Your task to perform on an android device: open app "McDonald's" Image 0: 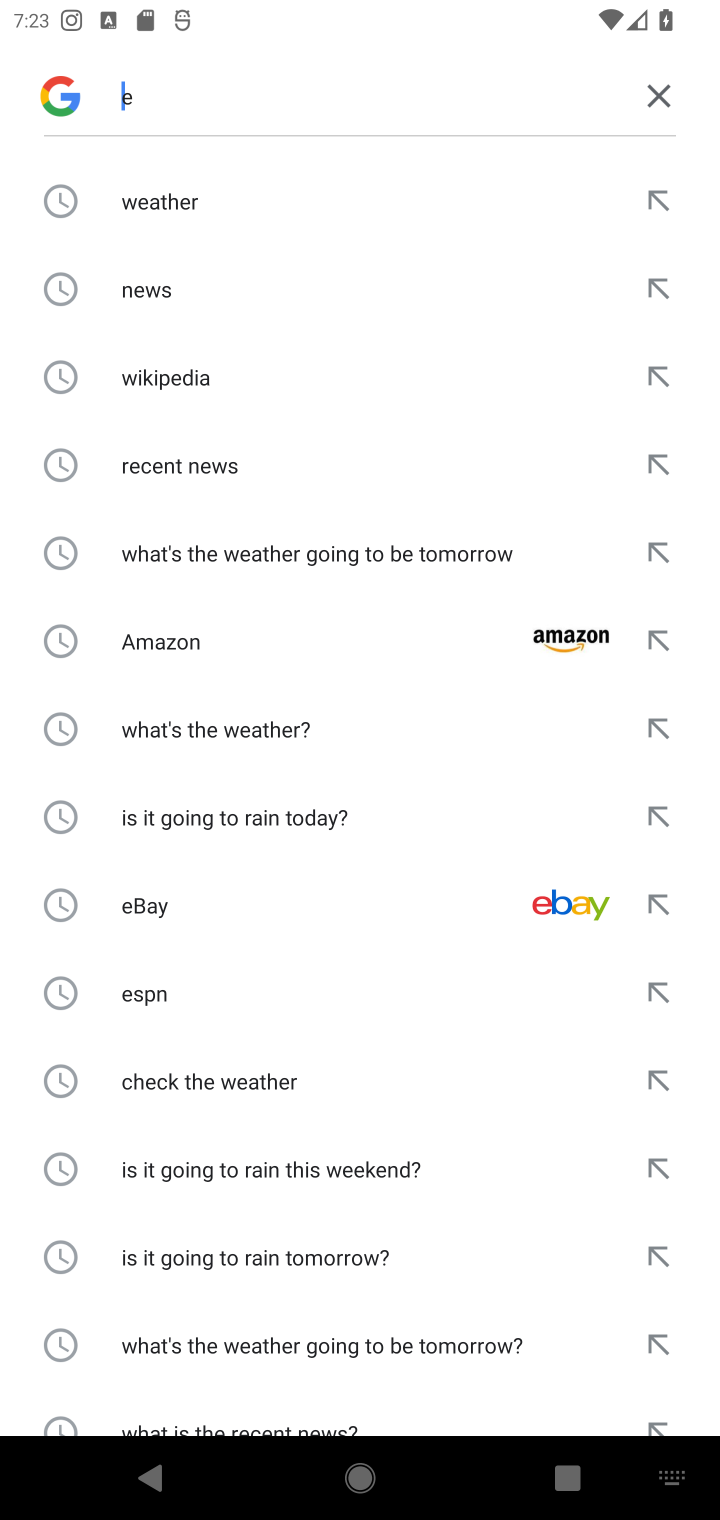
Step 0: press home button
Your task to perform on an android device: open app "McDonald's" Image 1: 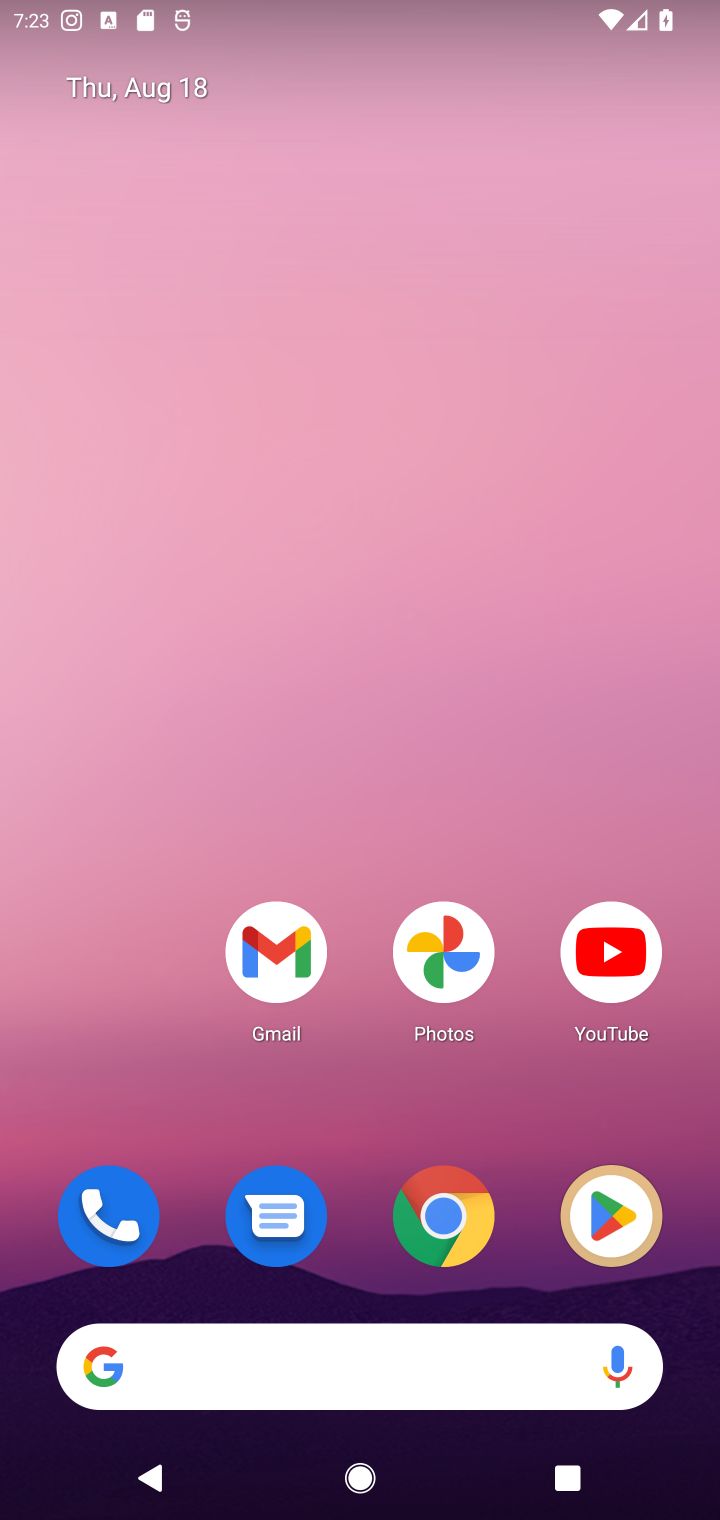
Step 1: click (600, 1208)
Your task to perform on an android device: open app "McDonald's" Image 2: 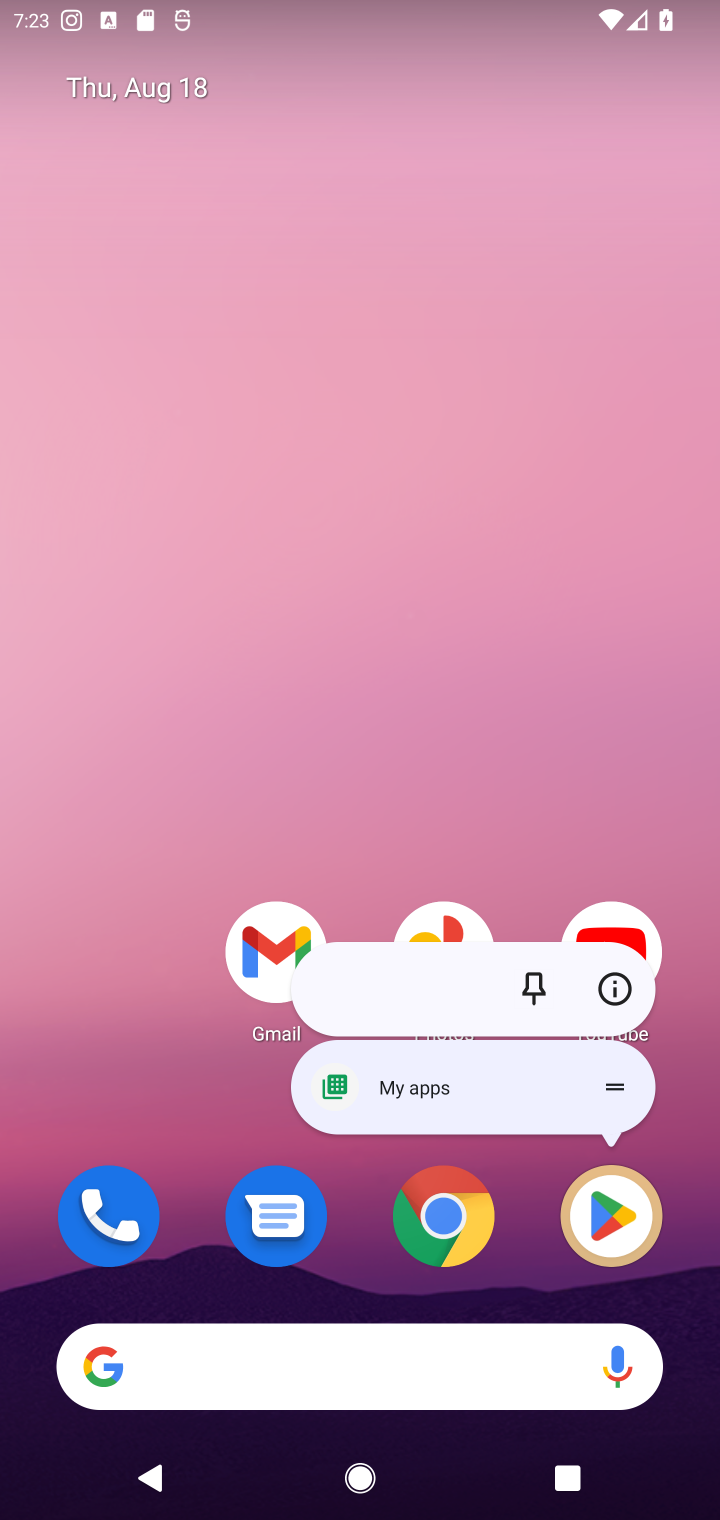
Step 2: click (591, 1207)
Your task to perform on an android device: open app "McDonald's" Image 3: 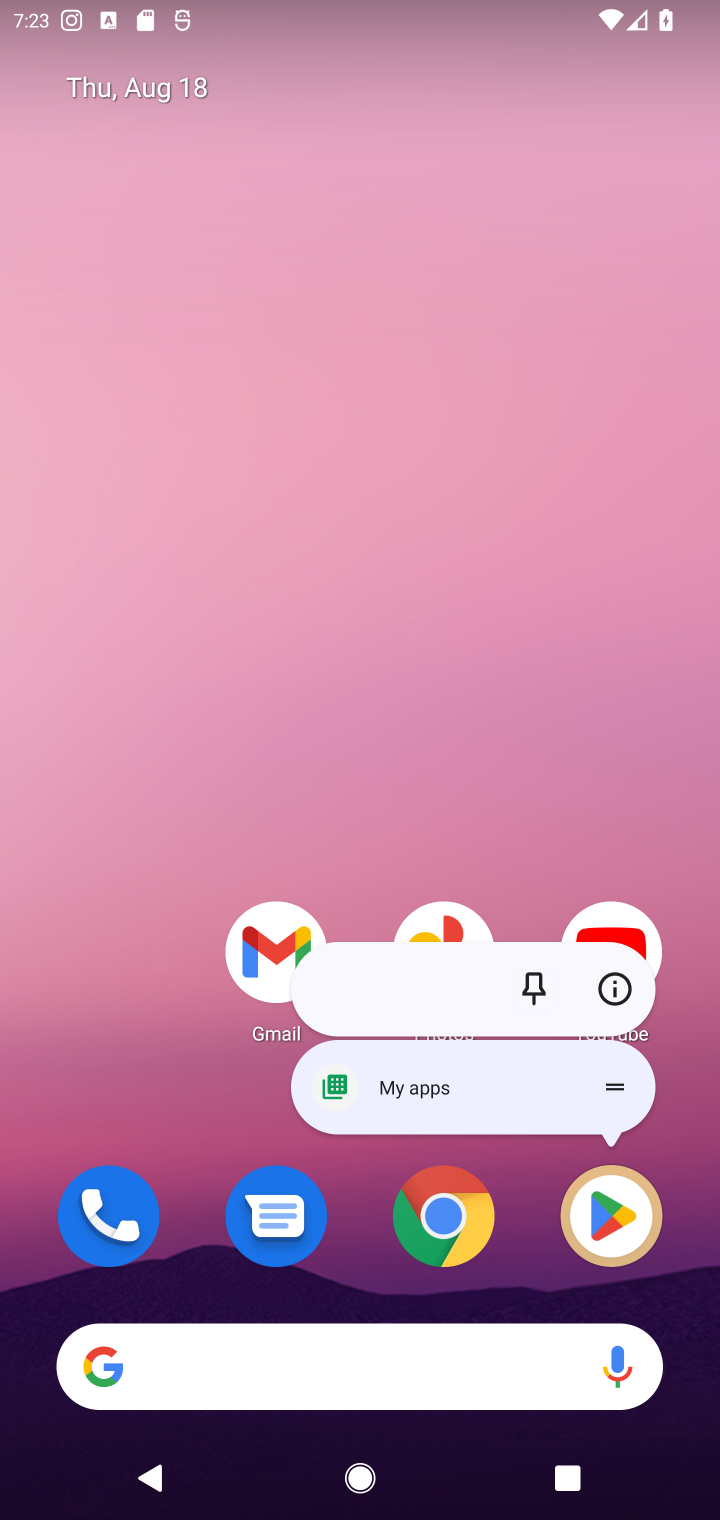
Step 3: click (632, 1201)
Your task to perform on an android device: open app "McDonald's" Image 4: 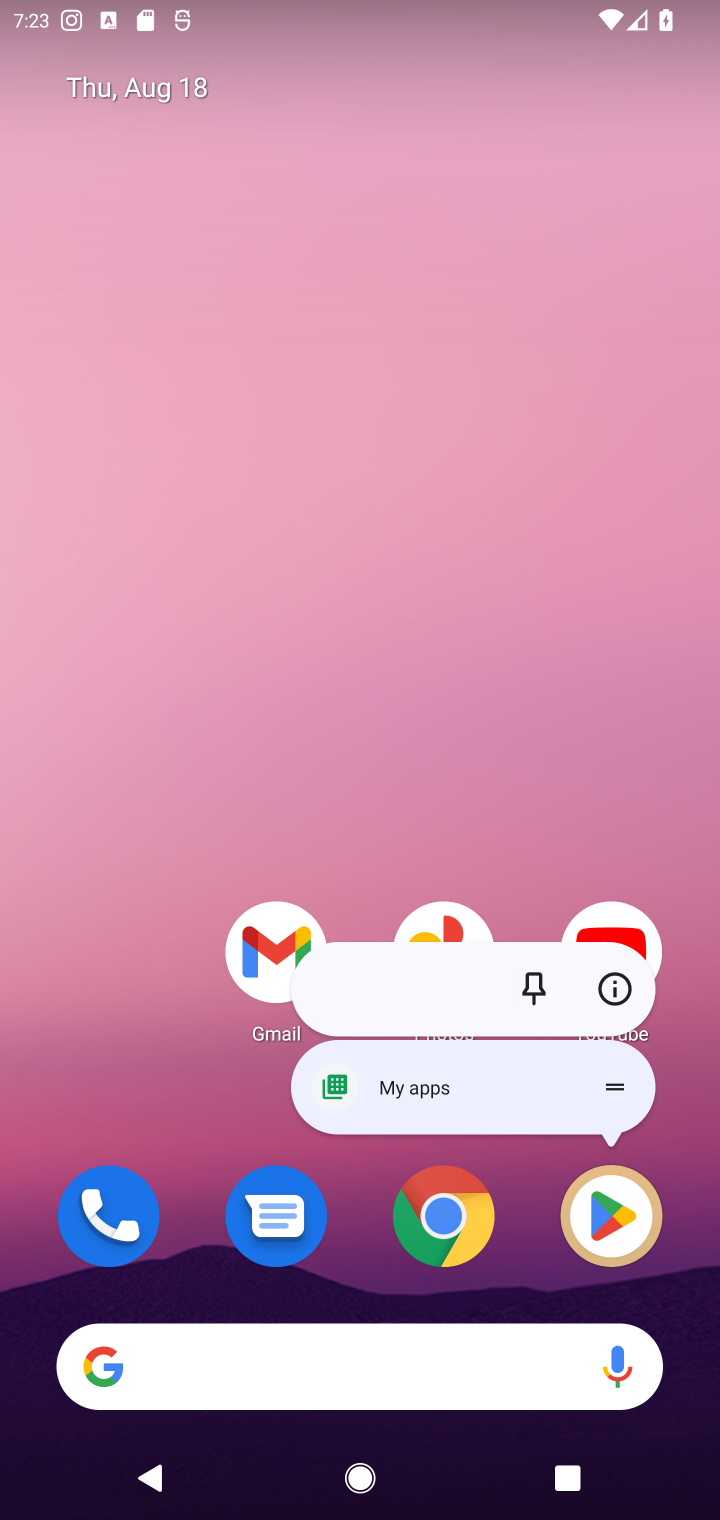
Step 4: click (632, 1201)
Your task to perform on an android device: open app "McDonald's" Image 5: 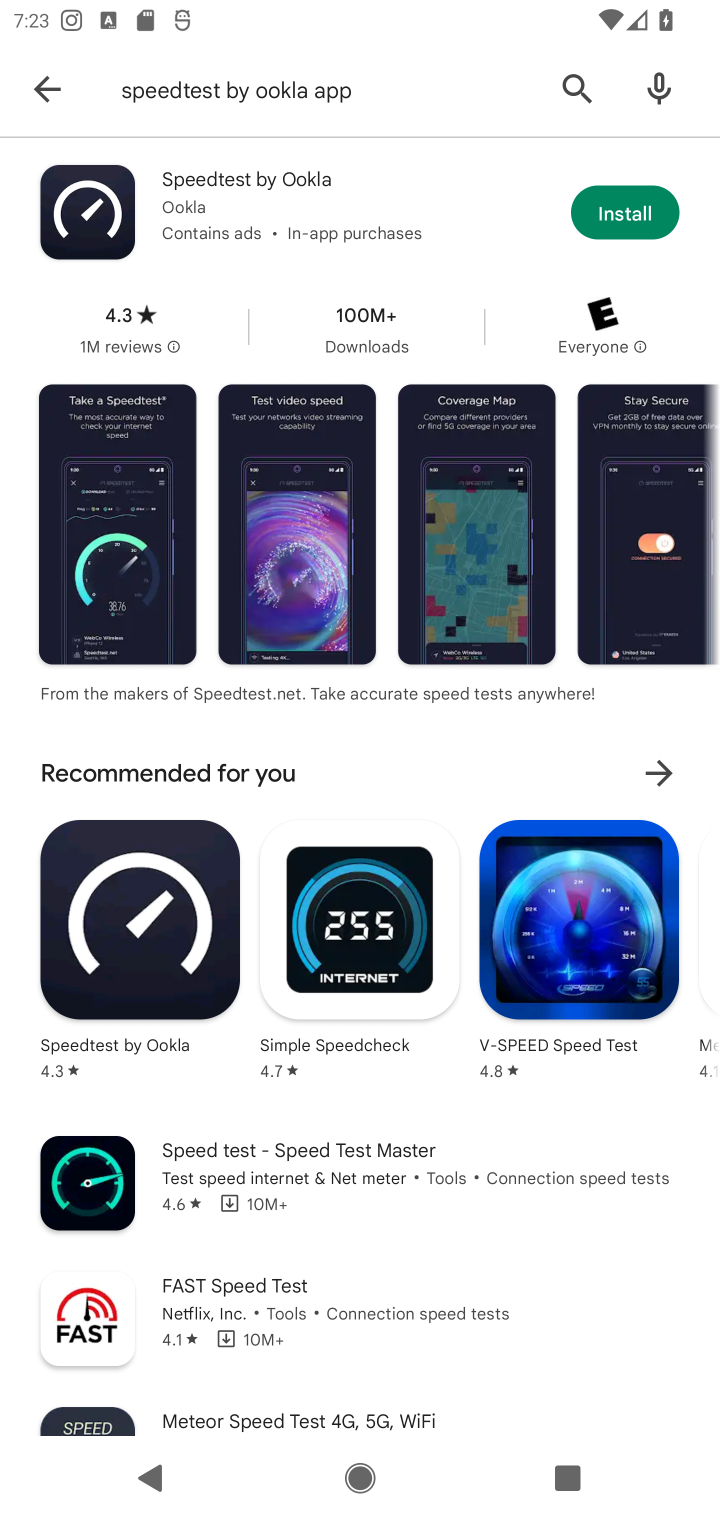
Step 5: click (566, 81)
Your task to perform on an android device: open app "McDonald's" Image 6: 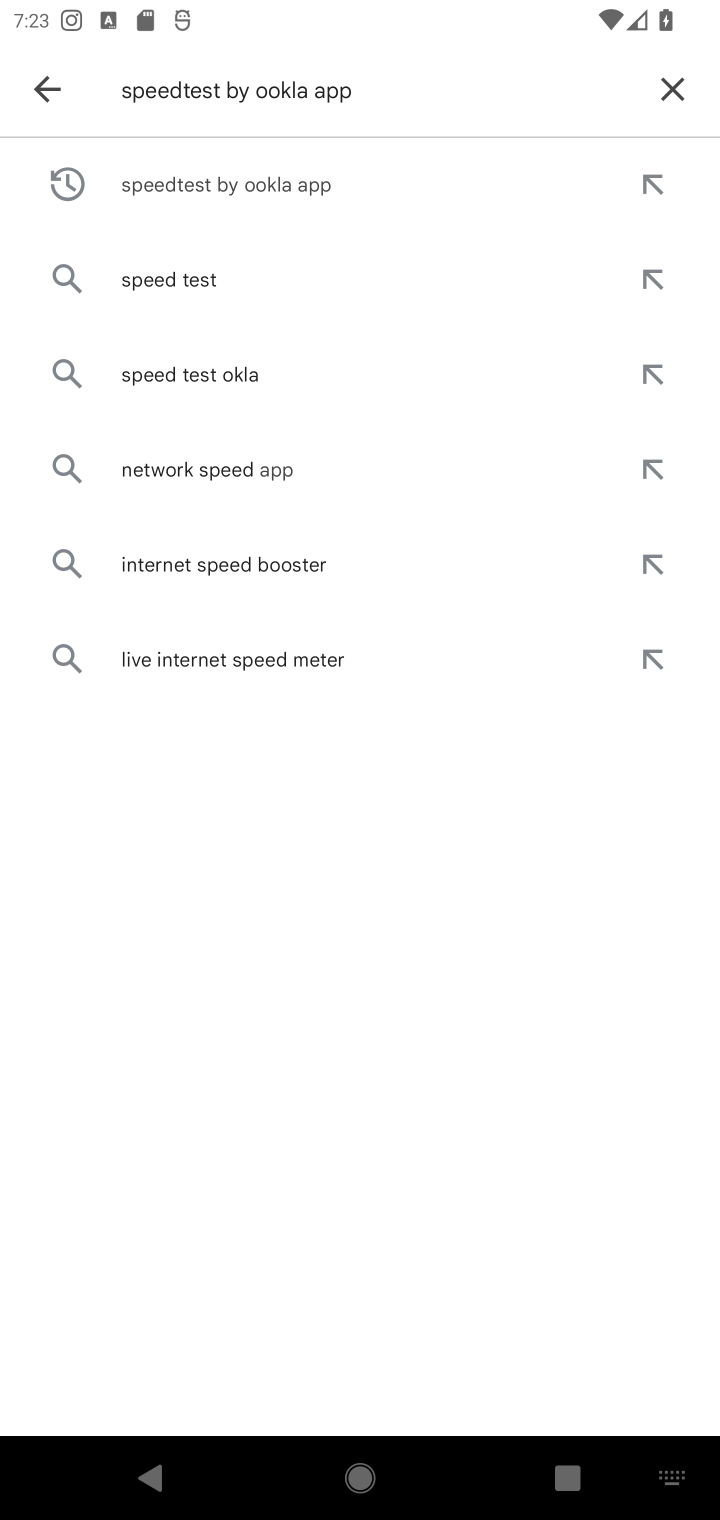
Step 6: click (678, 90)
Your task to perform on an android device: open app "McDonald's" Image 7: 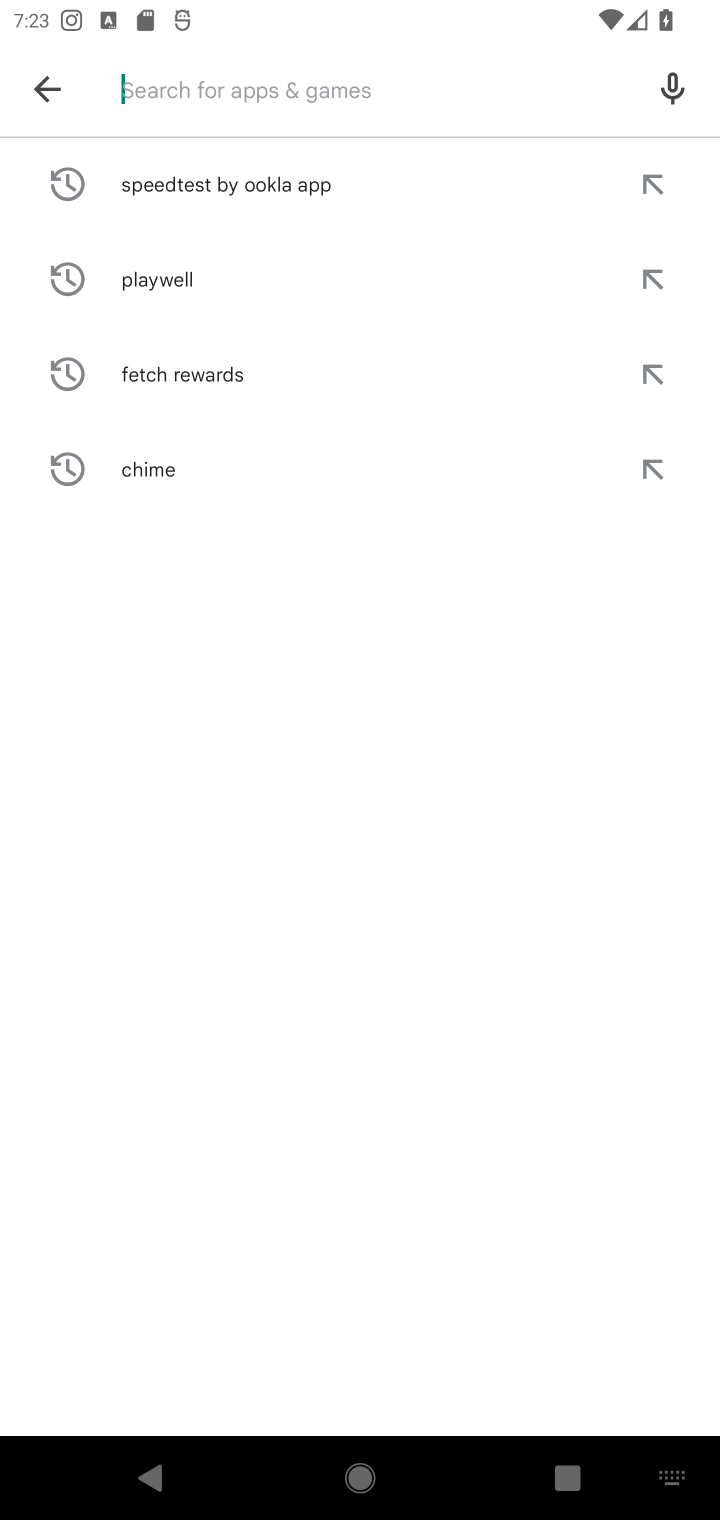
Step 7: type "McDonald's"
Your task to perform on an android device: open app "McDonald's" Image 8: 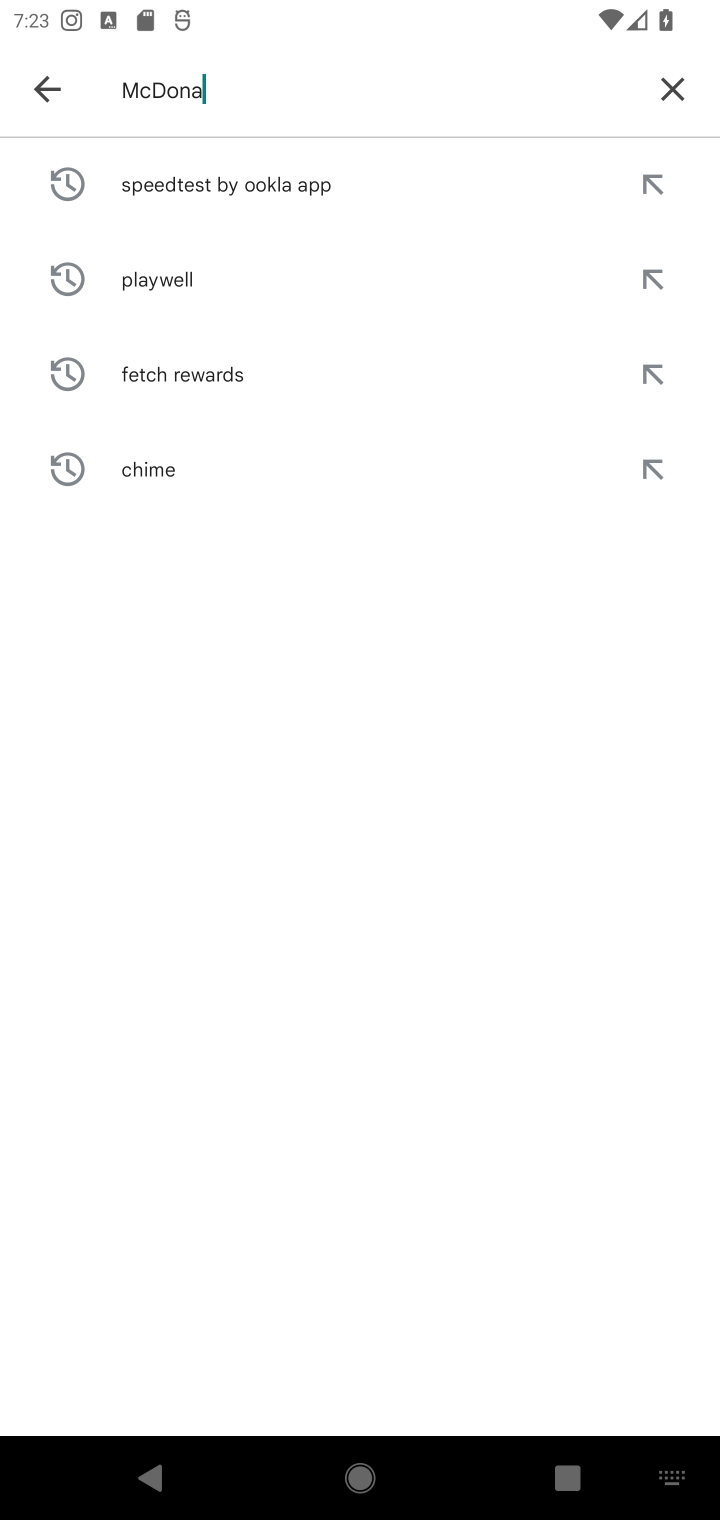
Step 8: type ""
Your task to perform on an android device: open app "McDonald's" Image 9: 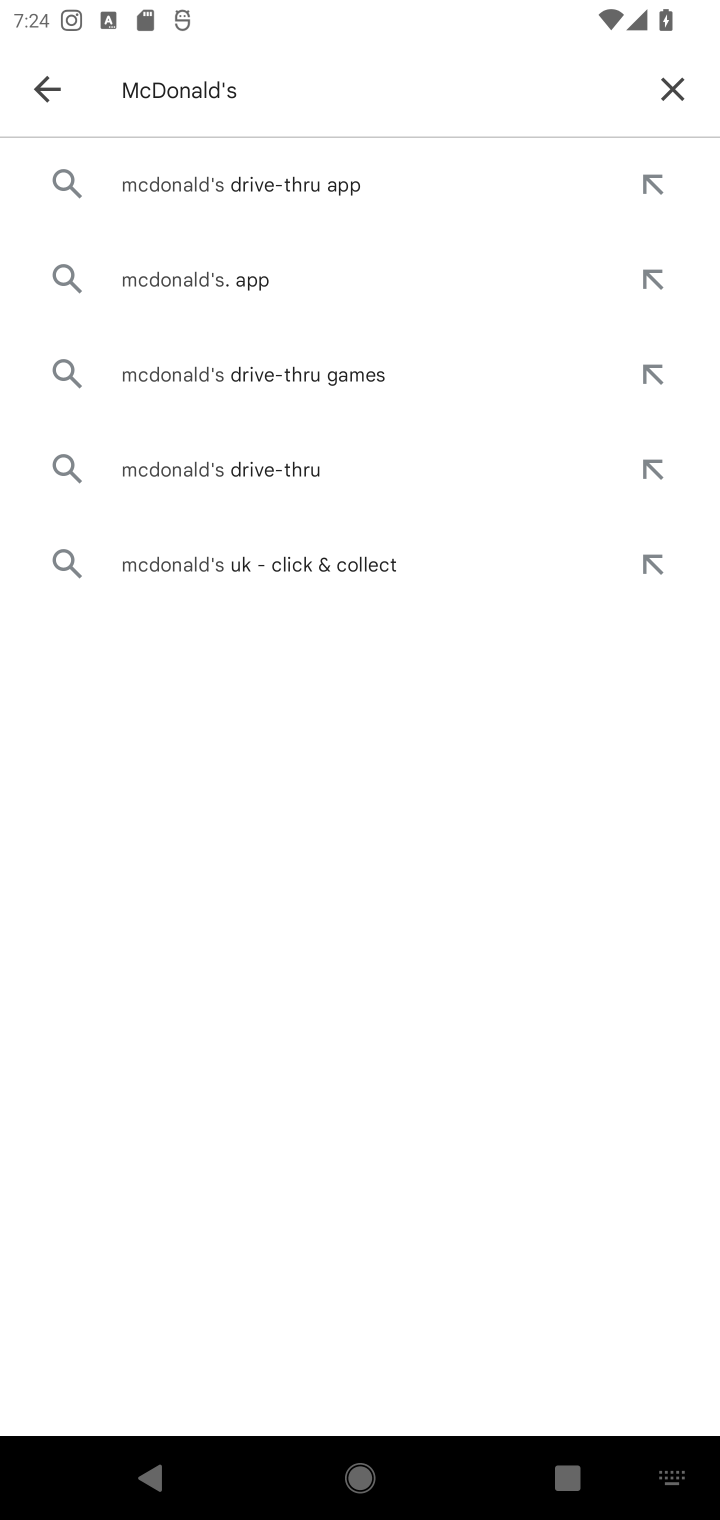
Step 9: click (215, 192)
Your task to perform on an android device: open app "McDonald's" Image 10: 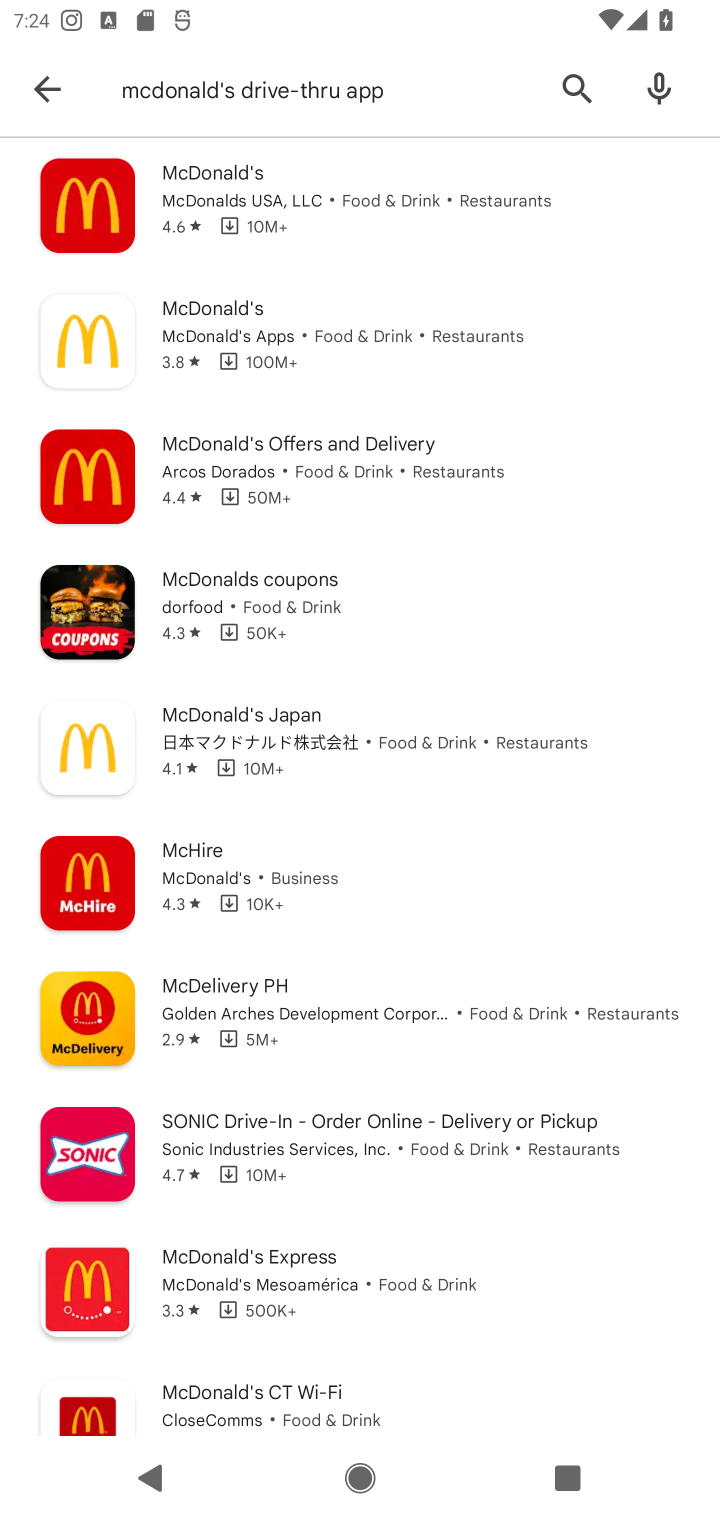
Step 10: click (315, 205)
Your task to perform on an android device: open app "McDonald's" Image 11: 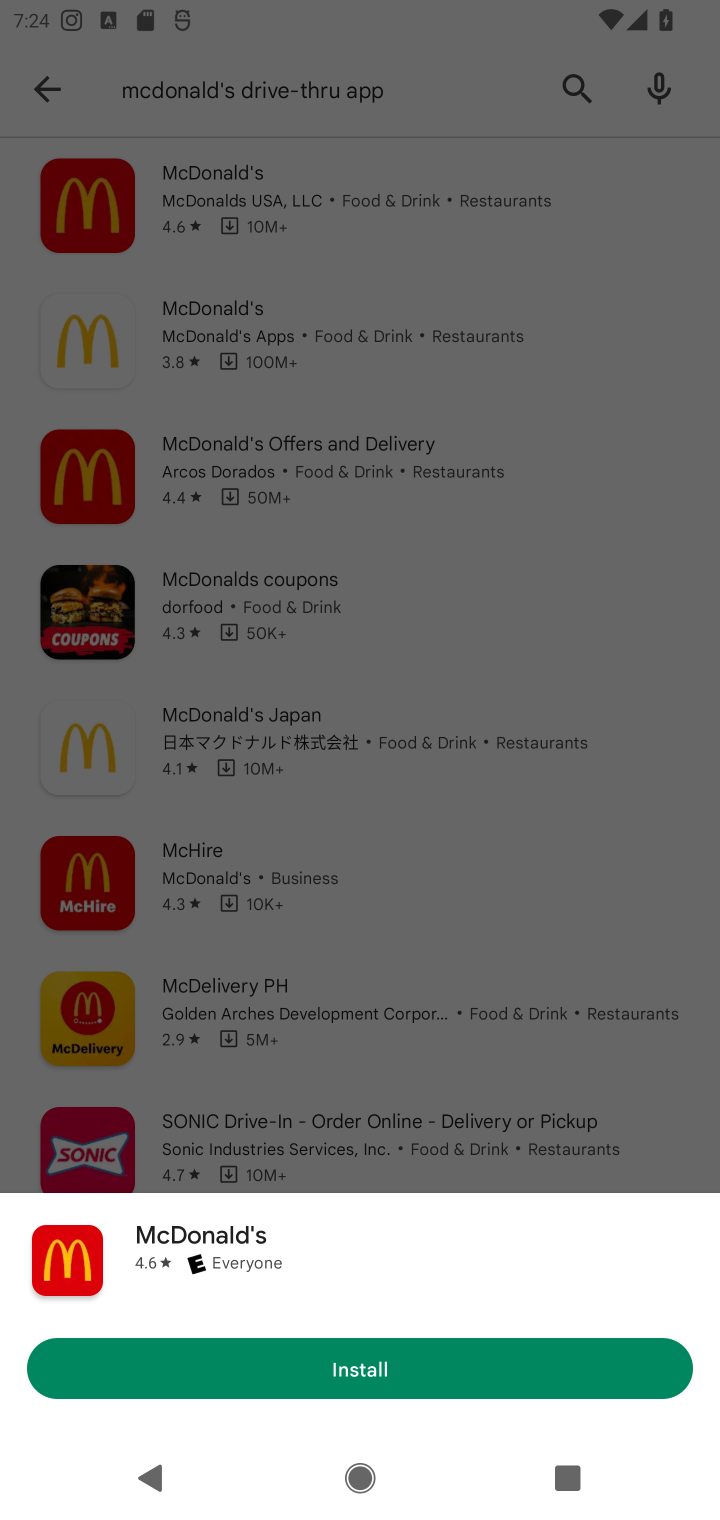
Step 11: click (504, 1342)
Your task to perform on an android device: open app "McDonald's" Image 12: 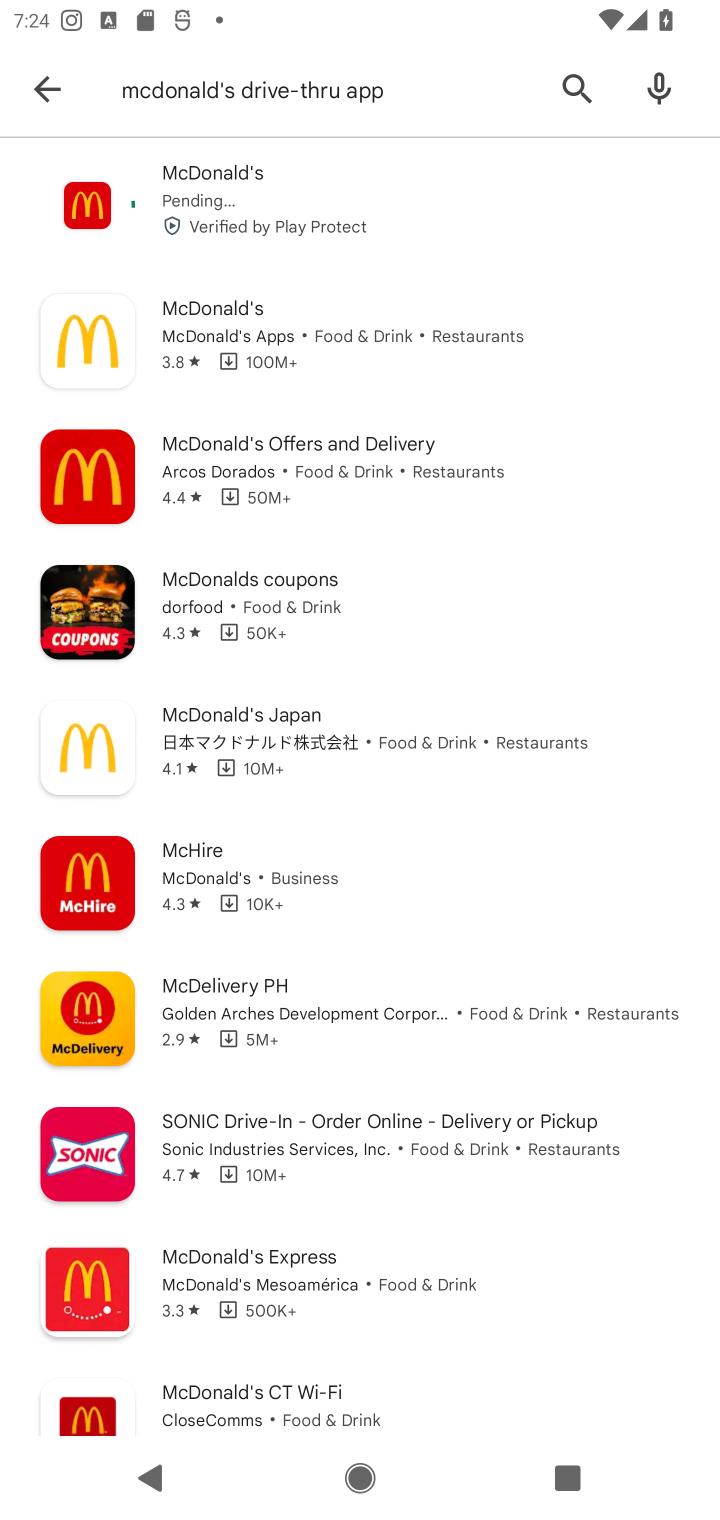
Step 12: task complete